Your task to perform on an android device: Open Yahoo.com Image 0: 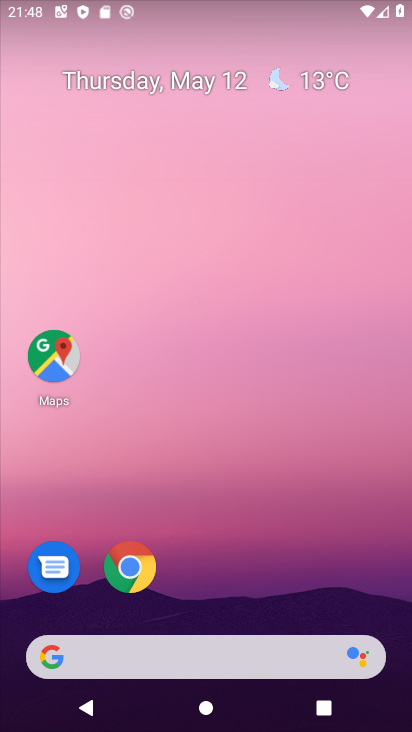
Step 0: press home button
Your task to perform on an android device: Open Yahoo.com Image 1: 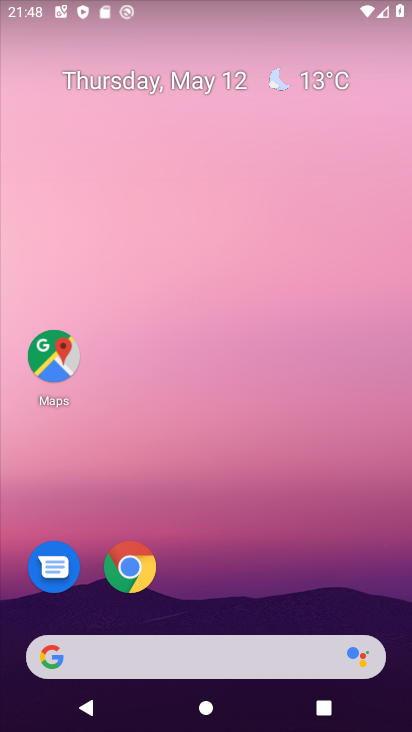
Step 1: click (125, 562)
Your task to perform on an android device: Open Yahoo.com Image 2: 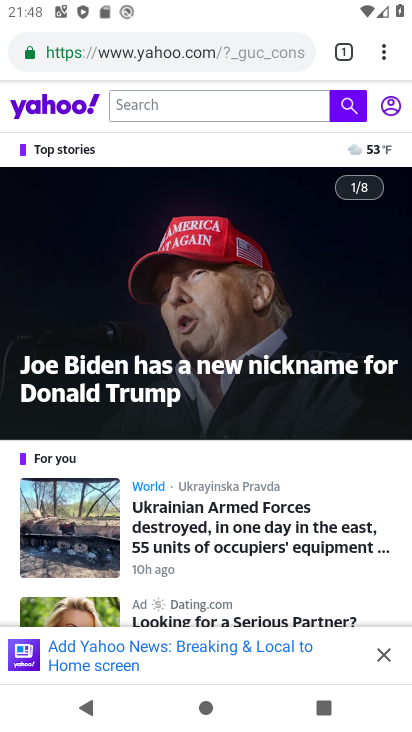
Step 2: task complete